Your task to perform on an android device: Go to battery settings Image 0: 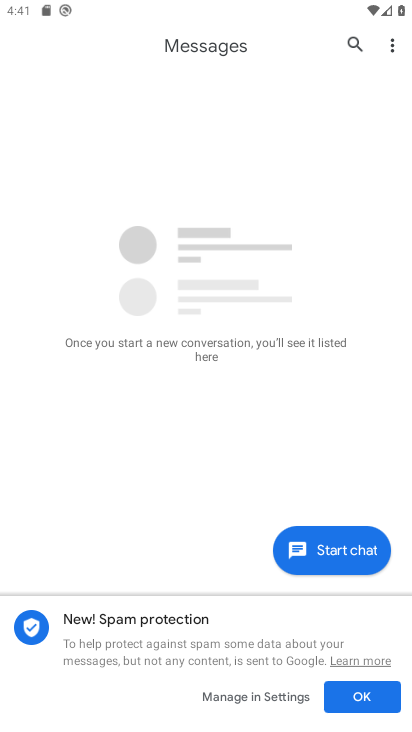
Step 0: press back button
Your task to perform on an android device: Go to battery settings Image 1: 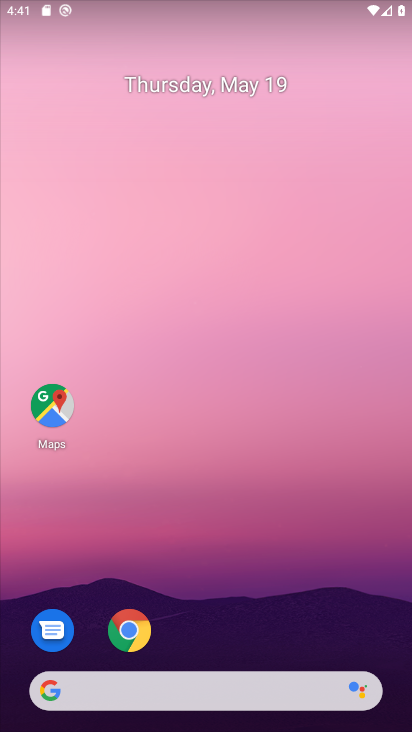
Step 1: drag from (308, 565) to (241, 32)
Your task to perform on an android device: Go to battery settings Image 2: 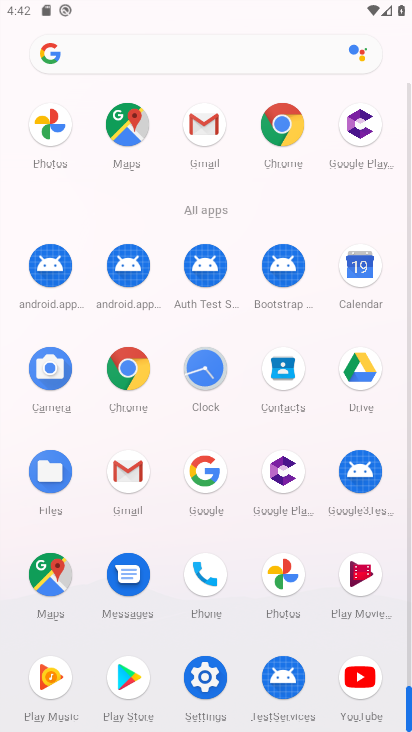
Step 2: click (201, 672)
Your task to perform on an android device: Go to battery settings Image 3: 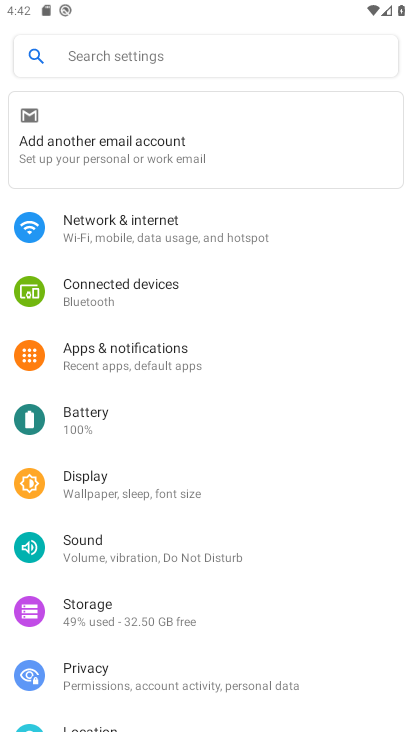
Step 3: click (108, 414)
Your task to perform on an android device: Go to battery settings Image 4: 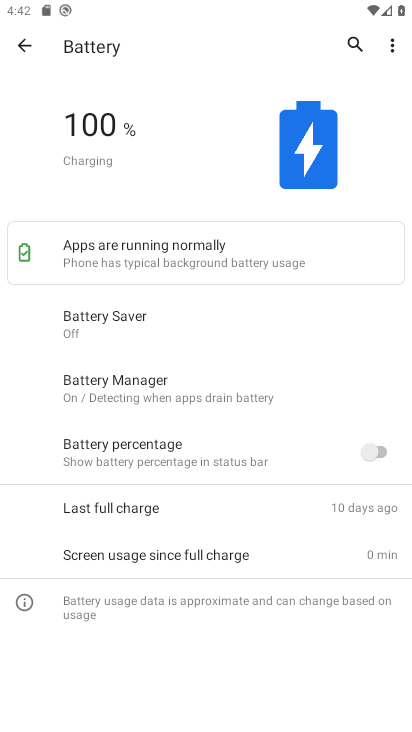
Step 4: task complete